Your task to perform on an android device: Play the last video I watched on Youtube Image 0: 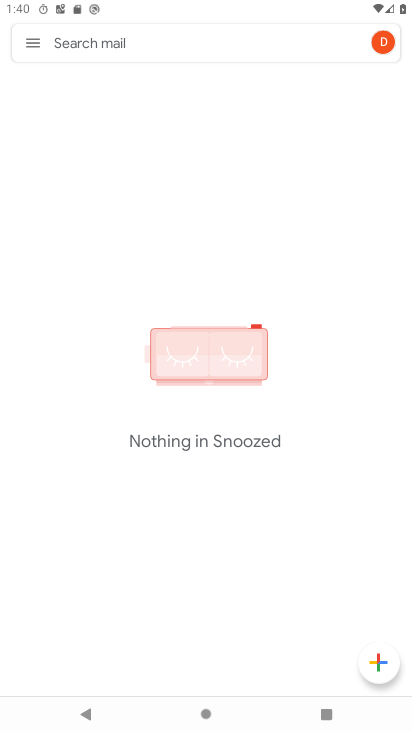
Step 0: click (47, 233)
Your task to perform on an android device: Play the last video I watched on Youtube Image 1: 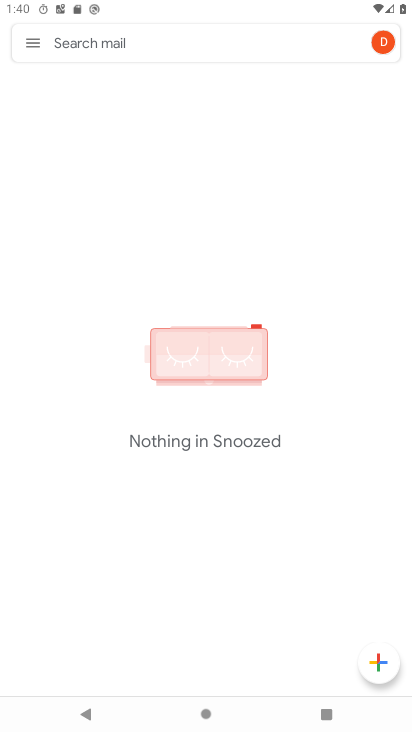
Step 1: press home button
Your task to perform on an android device: Play the last video I watched on Youtube Image 2: 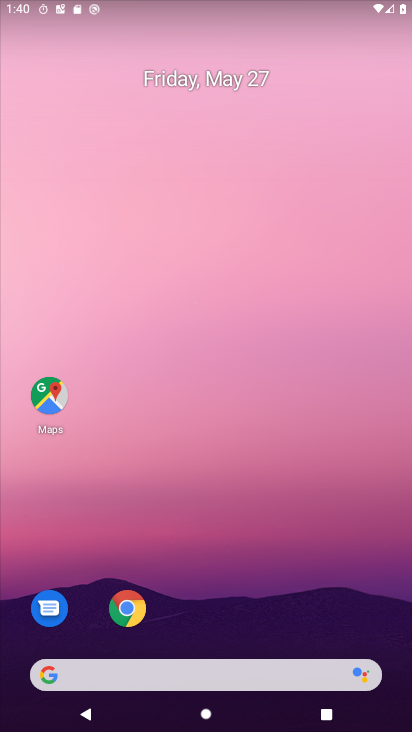
Step 2: drag from (395, 720) to (314, 66)
Your task to perform on an android device: Play the last video I watched on Youtube Image 3: 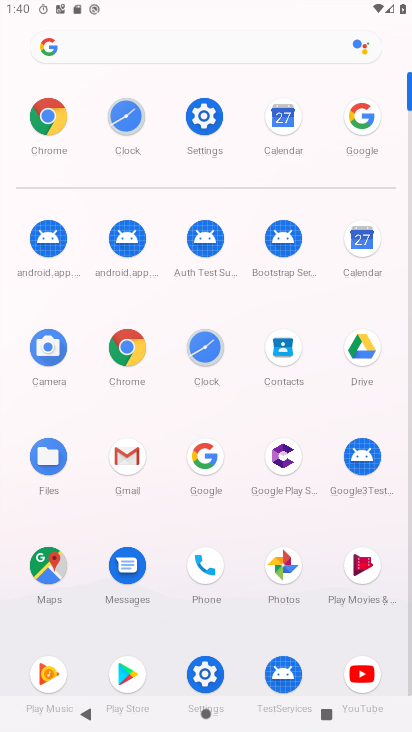
Step 3: click (369, 672)
Your task to perform on an android device: Play the last video I watched on Youtube Image 4: 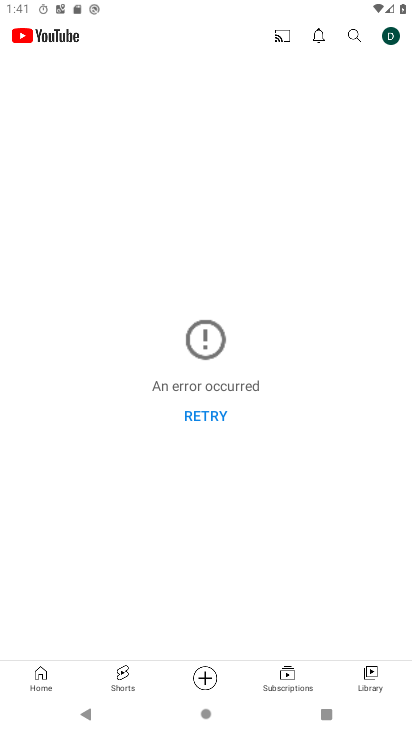
Step 4: click (363, 680)
Your task to perform on an android device: Play the last video I watched on Youtube Image 5: 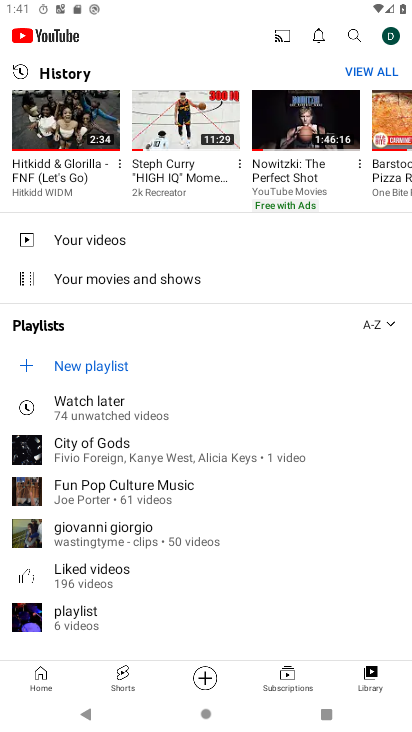
Step 5: click (20, 120)
Your task to perform on an android device: Play the last video I watched on Youtube Image 6: 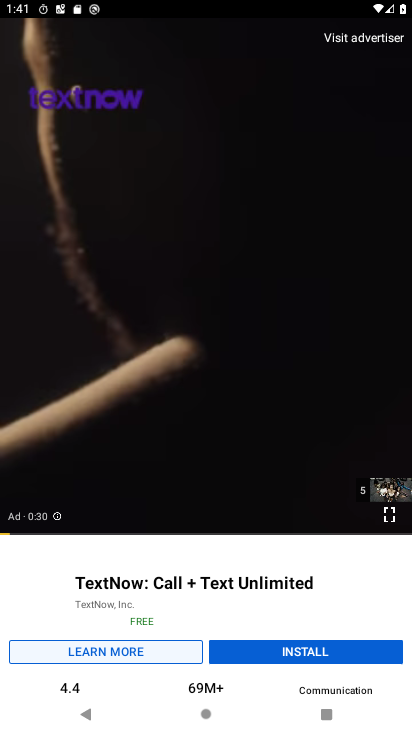
Step 6: task complete